Your task to perform on an android device: find which apps use the phone's location Image 0: 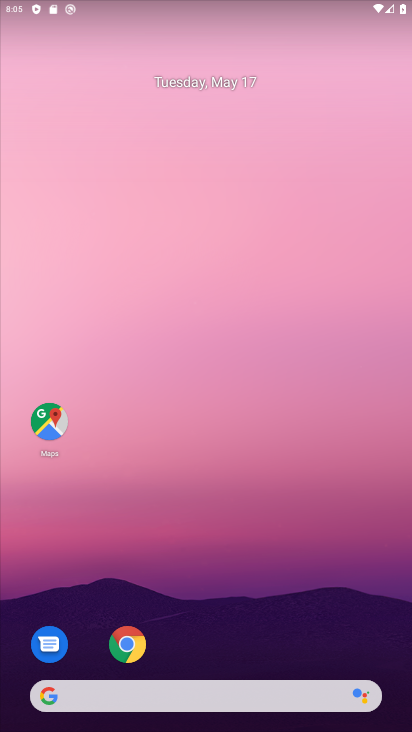
Step 0: drag from (257, 597) to (244, 79)
Your task to perform on an android device: find which apps use the phone's location Image 1: 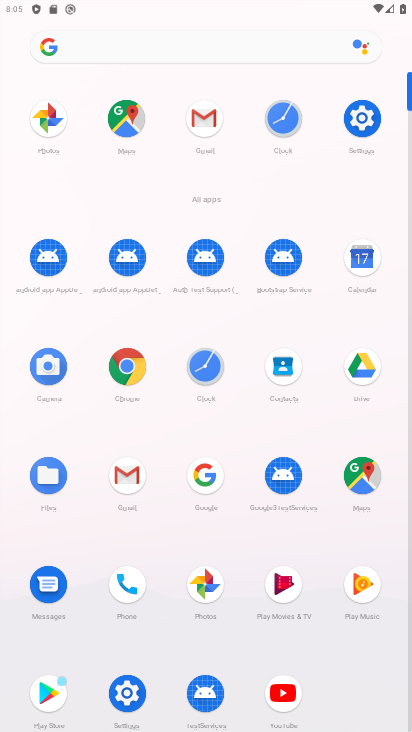
Step 1: click (124, 584)
Your task to perform on an android device: find which apps use the phone's location Image 2: 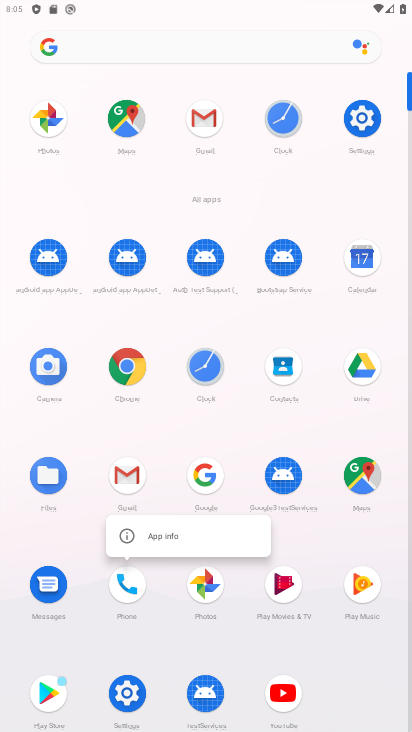
Step 2: click (137, 535)
Your task to perform on an android device: find which apps use the phone's location Image 3: 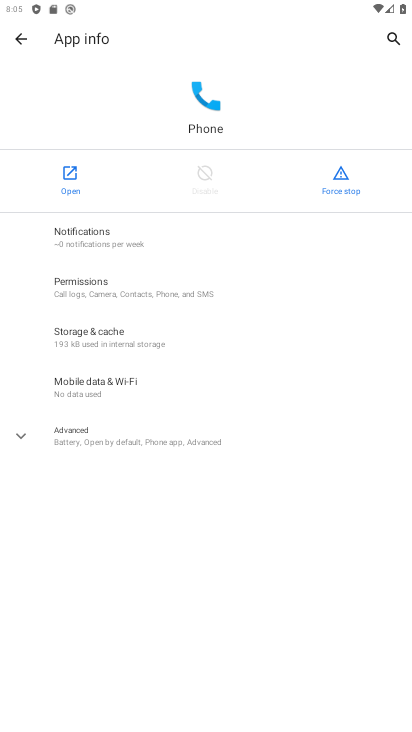
Step 3: click (76, 278)
Your task to perform on an android device: find which apps use the phone's location Image 4: 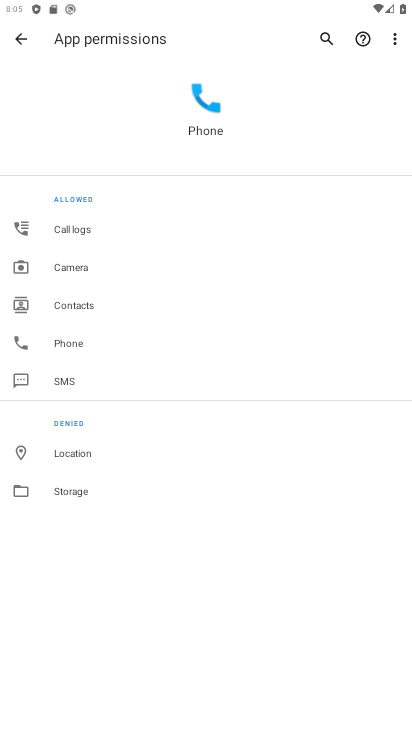
Step 4: click (73, 455)
Your task to perform on an android device: find which apps use the phone's location Image 5: 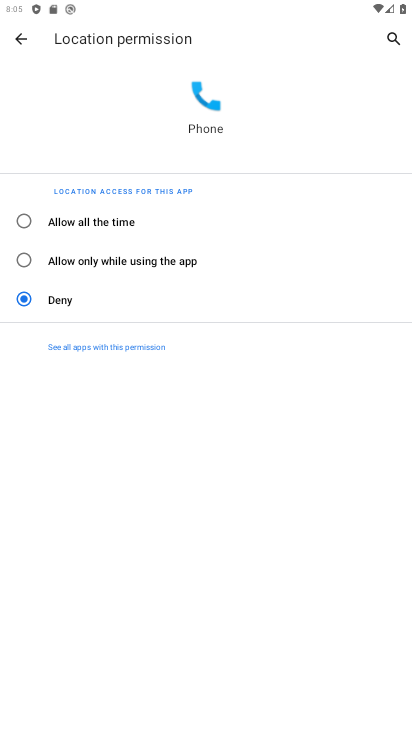
Step 5: task complete